Your task to perform on an android device: What's the weather going to be this weekend? Image 0: 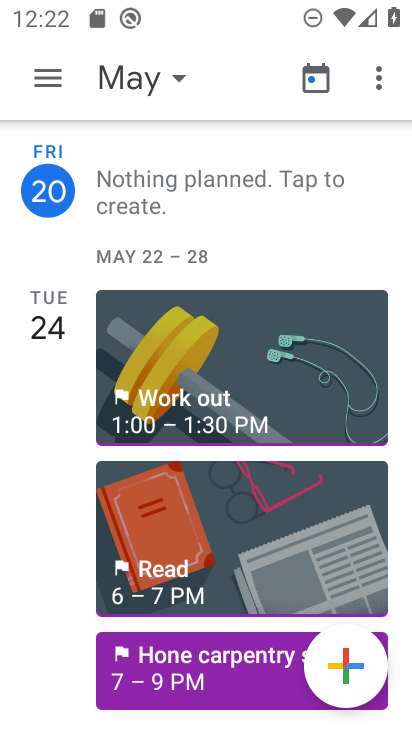
Step 0: press home button
Your task to perform on an android device: What's the weather going to be this weekend? Image 1: 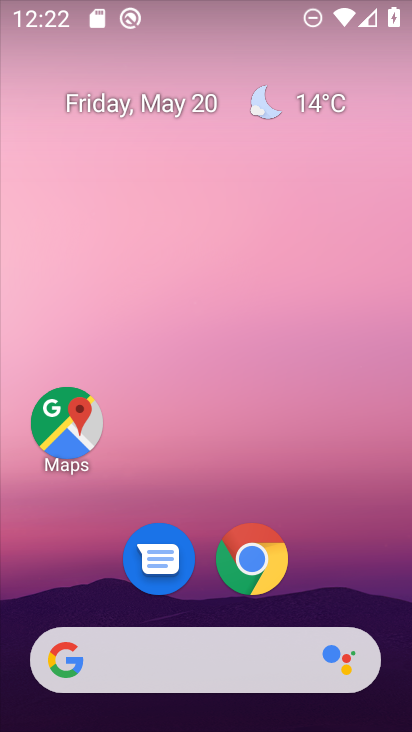
Step 1: drag from (345, 571) to (329, 340)
Your task to perform on an android device: What's the weather going to be this weekend? Image 2: 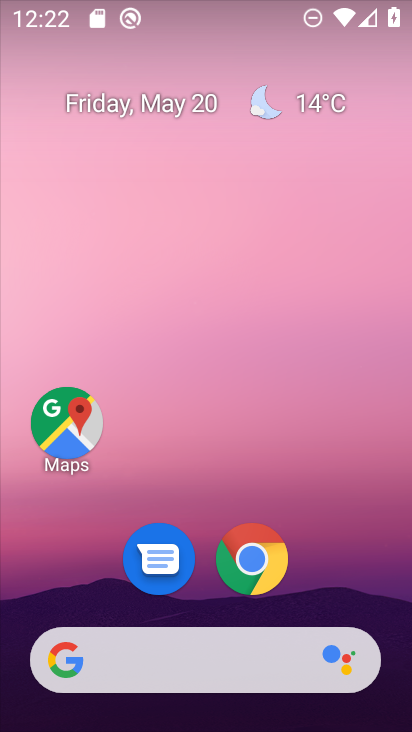
Step 2: click (217, 665)
Your task to perform on an android device: What's the weather going to be this weekend? Image 3: 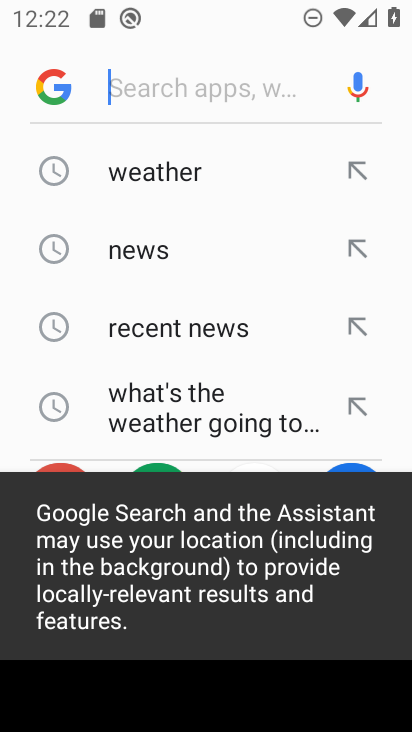
Step 3: click (147, 177)
Your task to perform on an android device: What's the weather going to be this weekend? Image 4: 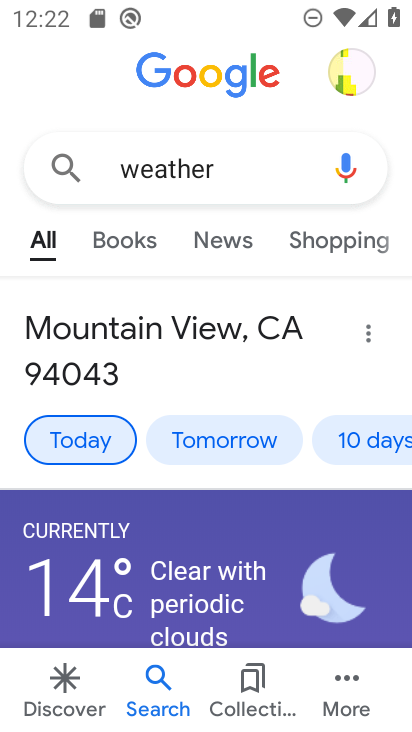
Step 4: click (340, 438)
Your task to perform on an android device: What's the weather going to be this weekend? Image 5: 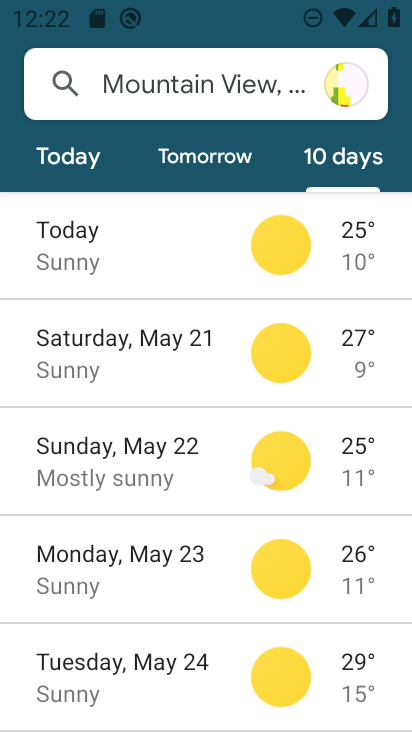
Step 5: task complete